Your task to perform on an android device: Go to privacy settings Image 0: 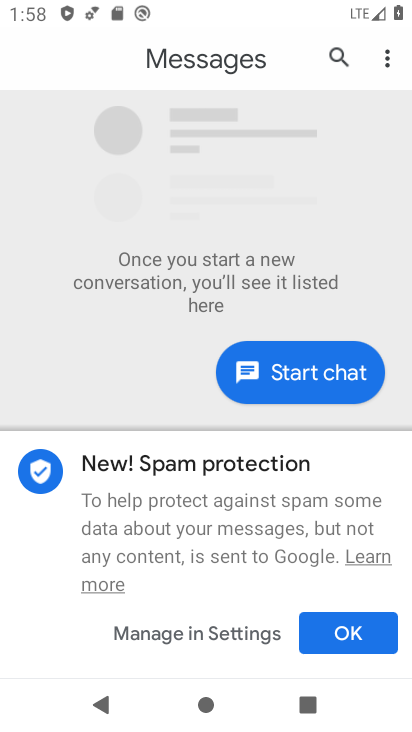
Step 0: press home button
Your task to perform on an android device: Go to privacy settings Image 1: 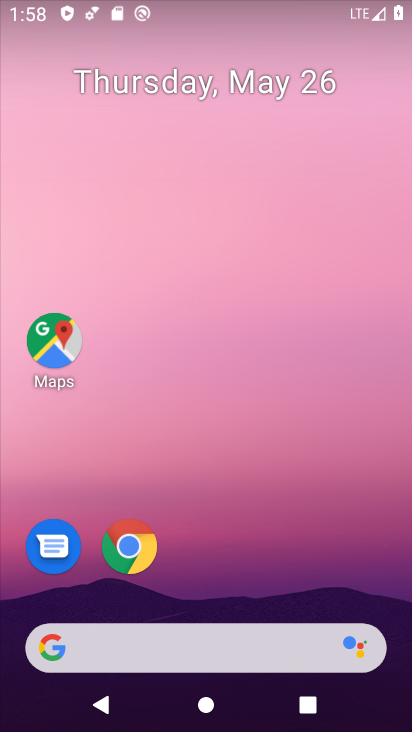
Step 1: drag from (291, 538) to (206, 26)
Your task to perform on an android device: Go to privacy settings Image 2: 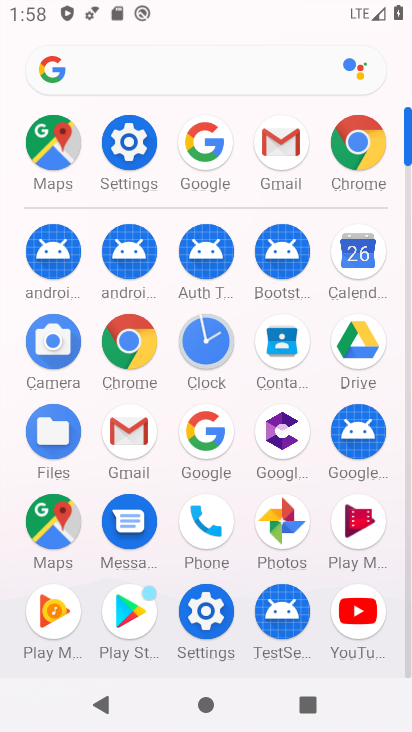
Step 2: click (123, 132)
Your task to perform on an android device: Go to privacy settings Image 3: 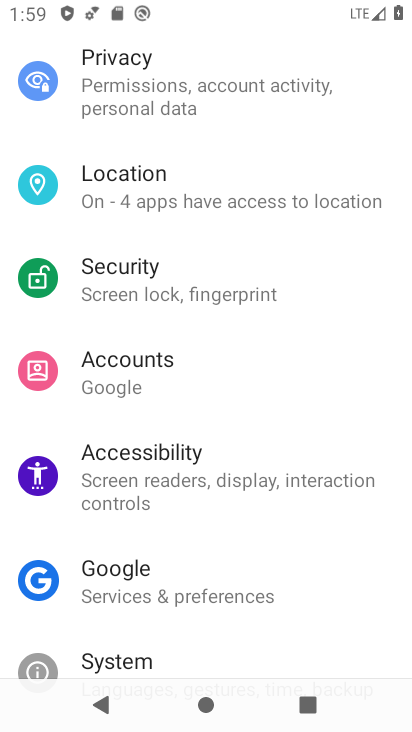
Step 3: click (194, 90)
Your task to perform on an android device: Go to privacy settings Image 4: 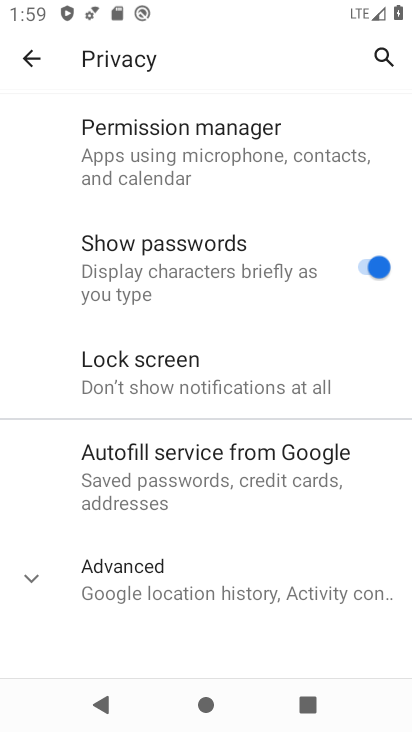
Step 4: task complete